Your task to perform on an android device: install app "WhatsApp Messenger" Image 0: 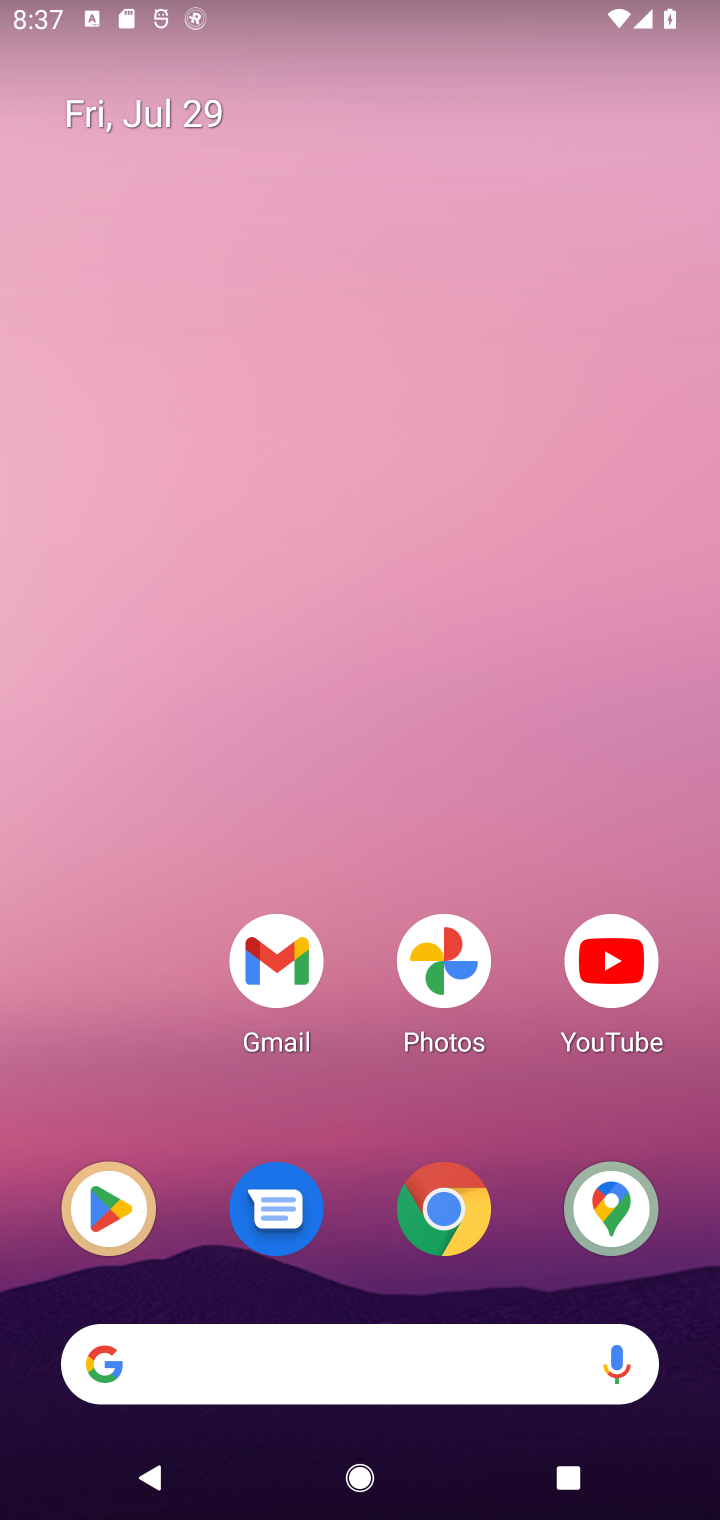
Step 0: click (122, 1212)
Your task to perform on an android device: install app "WhatsApp Messenger" Image 1: 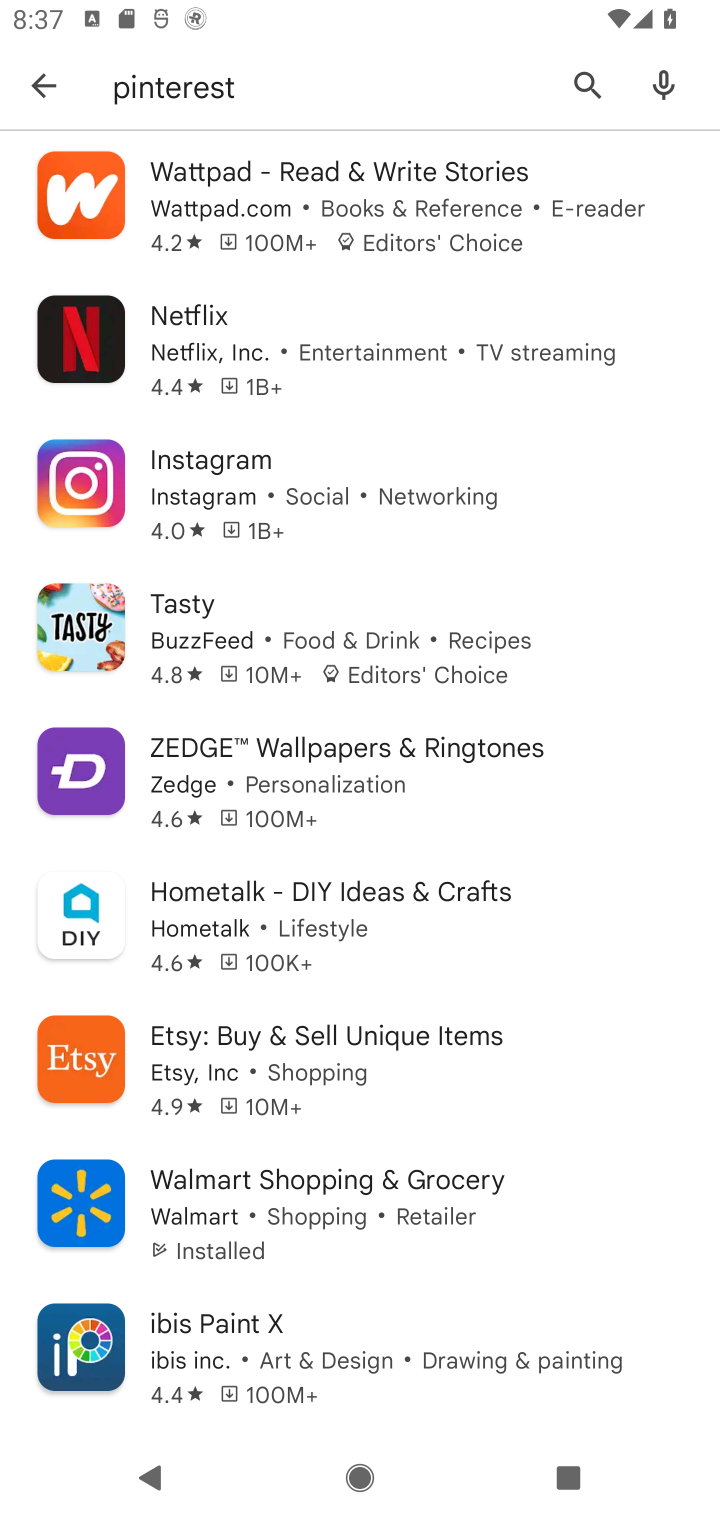
Step 1: click (589, 83)
Your task to perform on an android device: install app "WhatsApp Messenger" Image 2: 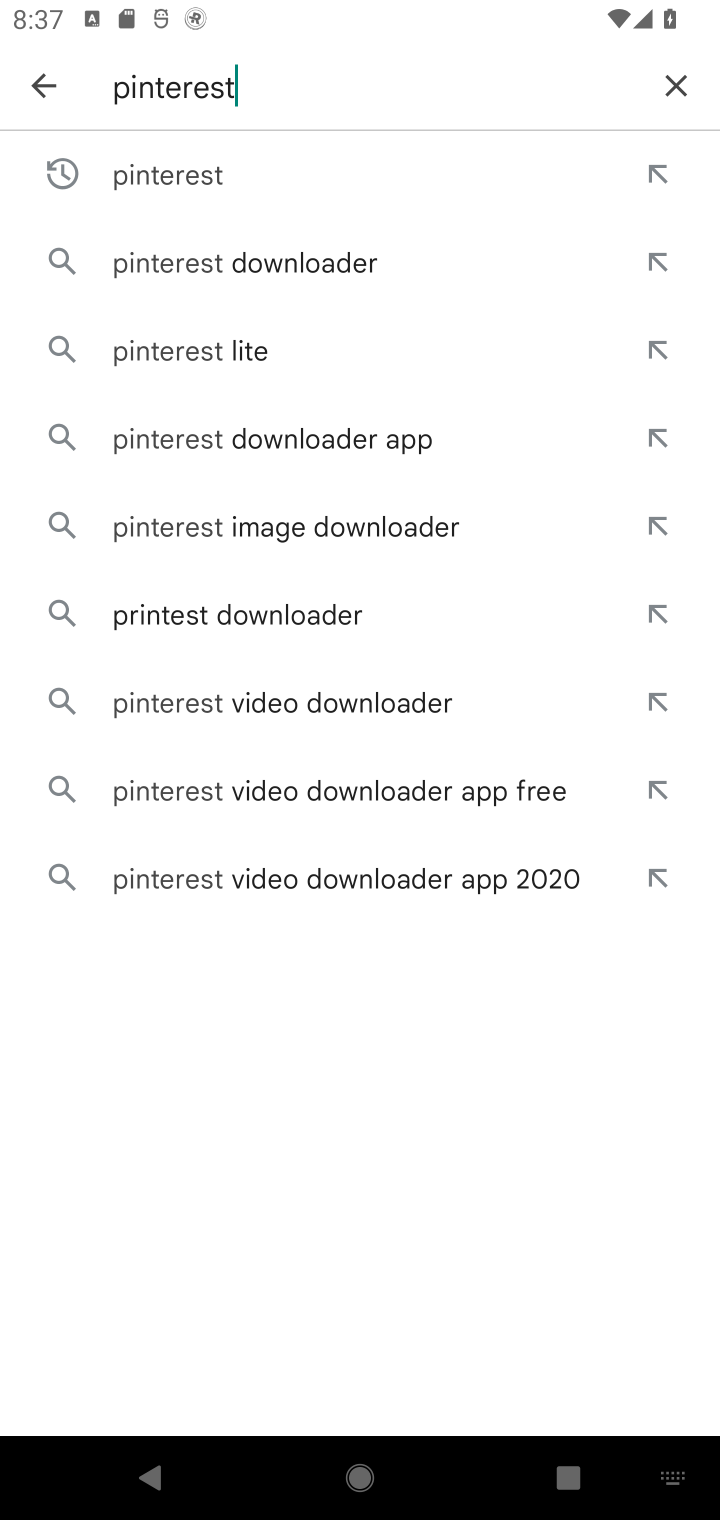
Step 2: click (674, 91)
Your task to perform on an android device: install app "WhatsApp Messenger" Image 3: 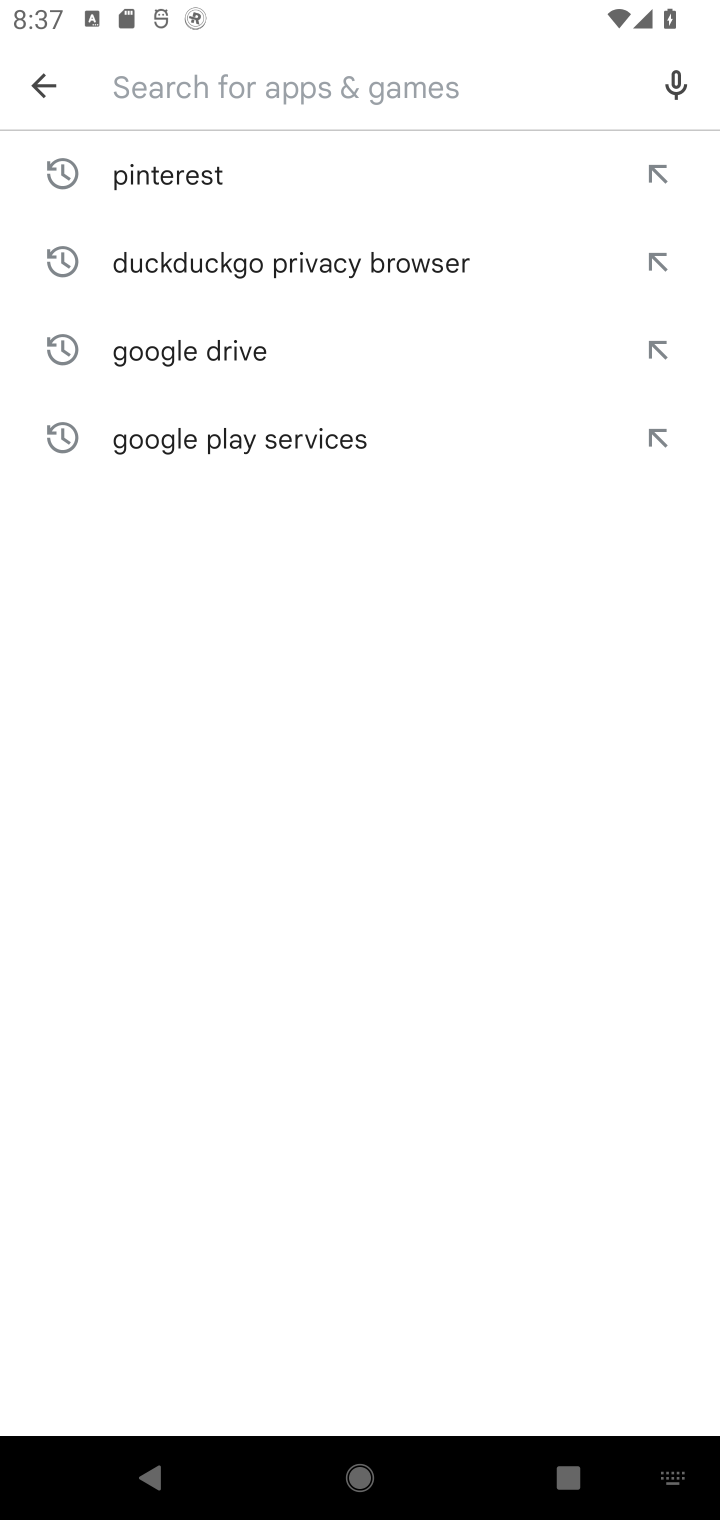
Step 3: type "WhatsApp Messenger"
Your task to perform on an android device: install app "WhatsApp Messenger" Image 4: 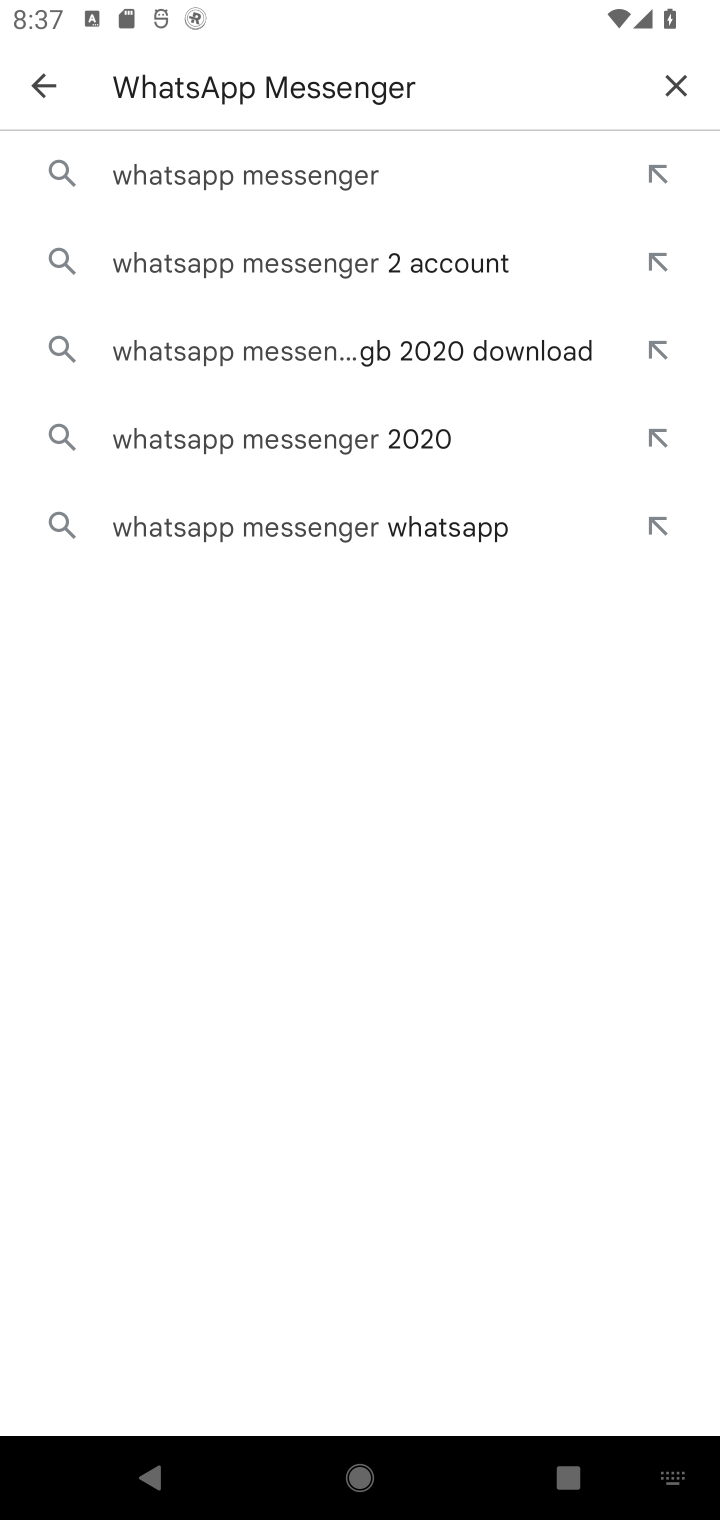
Step 4: click (294, 184)
Your task to perform on an android device: install app "WhatsApp Messenger" Image 5: 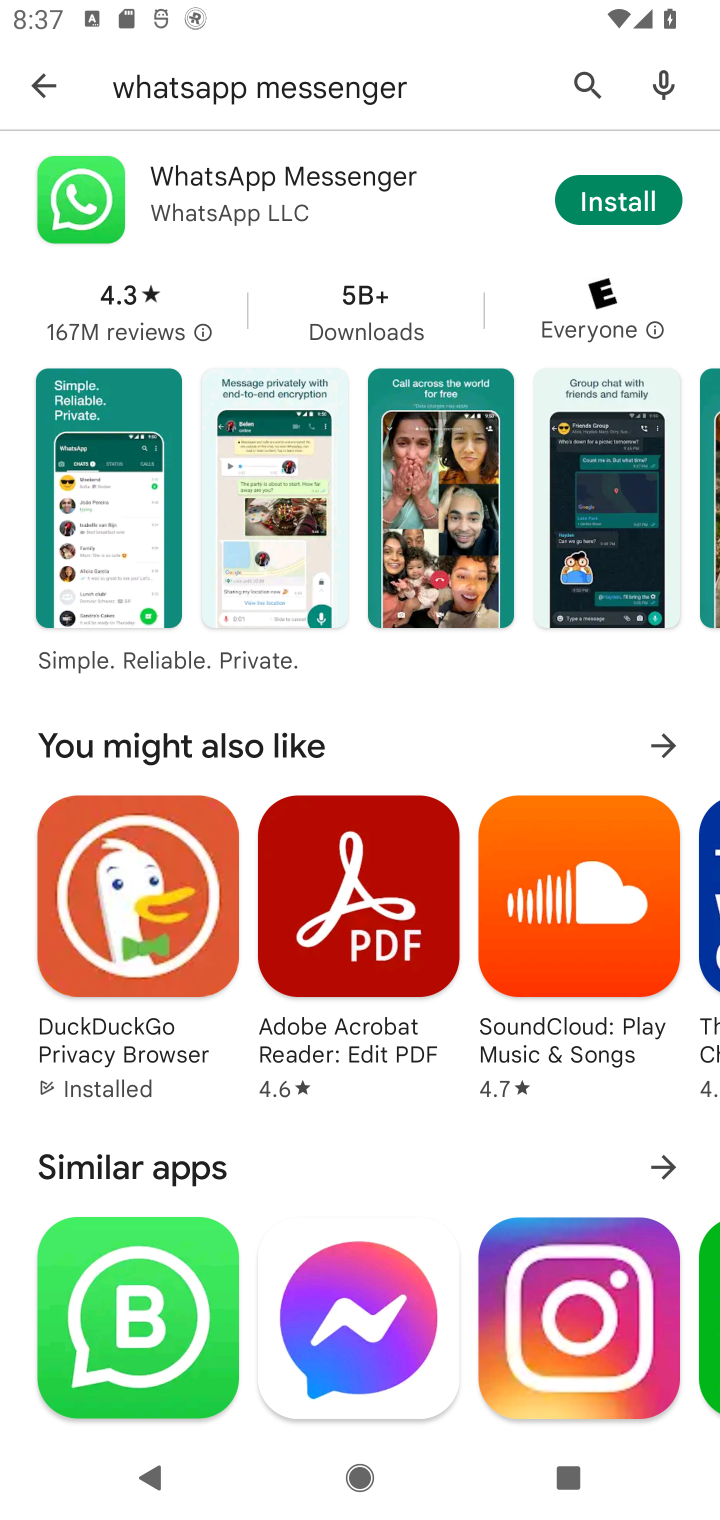
Step 5: click (622, 195)
Your task to perform on an android device: install app "WhatsApp Messenger" Image 6: 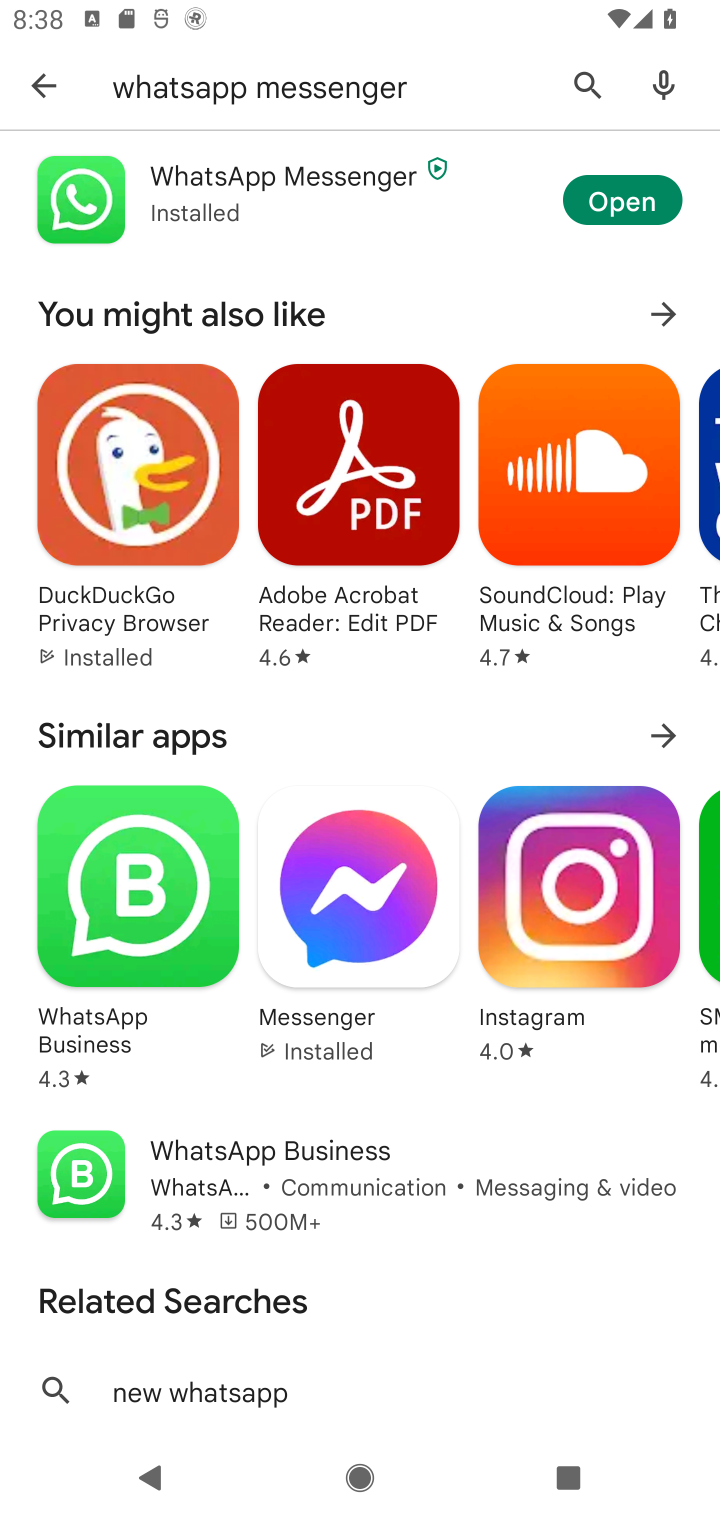
Step 6: task complete